Your task to perform on an android device: set the timer Image 0: 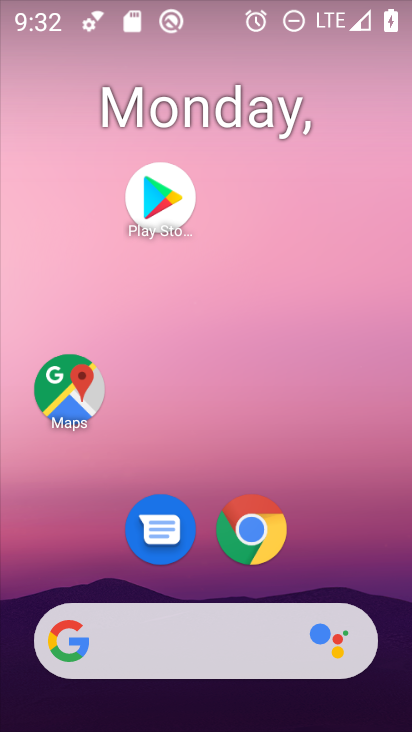
Step 0: click (250, 159)
Your task to perform on an android device: set the timer Image 1: 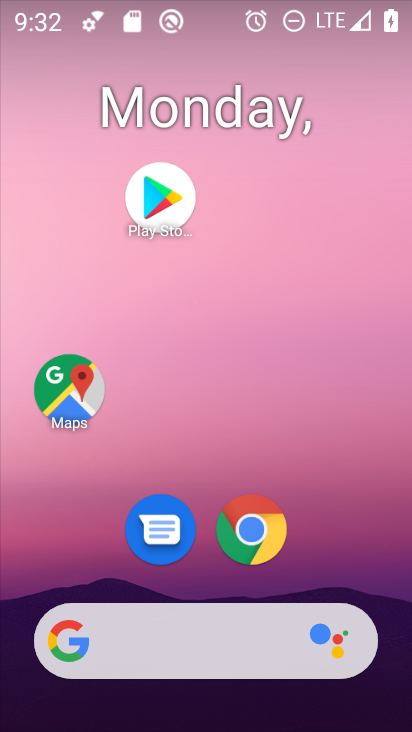
Step 1: drag from (336, 483) to (306, 64)
Your task to perform on an android device: set the timer Image 2: 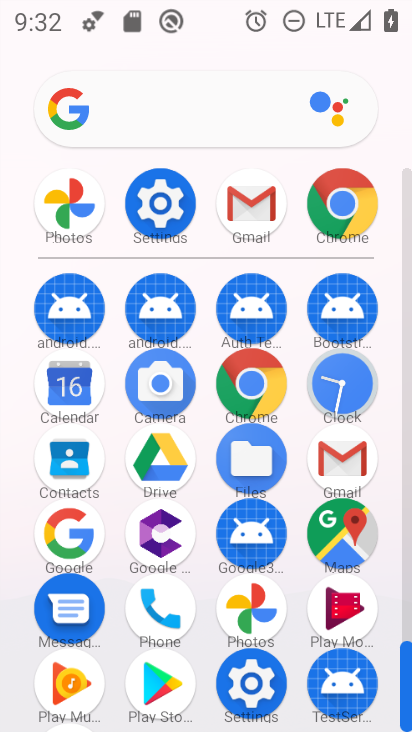
Step 2: click (332, 374)
Your task to perform on an android device: set the timer Image 3: 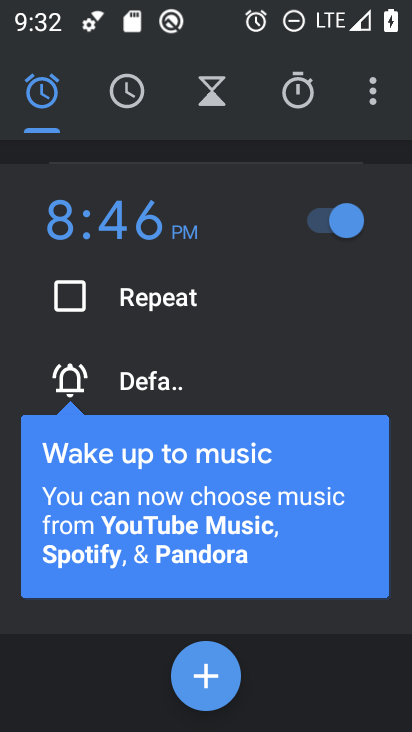
Step 3: click (377, 85)
Your task to perform on an android device: set the timer Image 4: 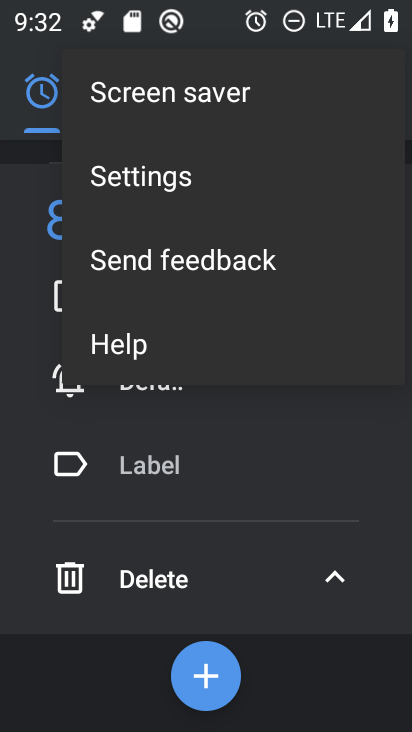
Step 4: click (152, 179)
Your task to perform on an android device: set the timer Image 5: 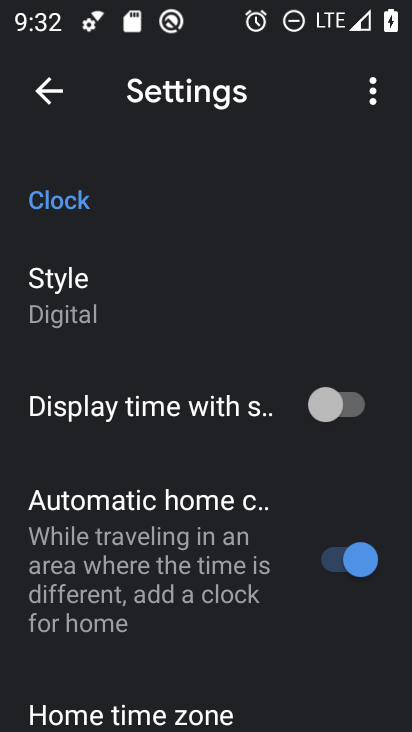
Step 5: drag from (224, 644) to (204, 258)
Your task to perform on an android device: set the timer Image 6: 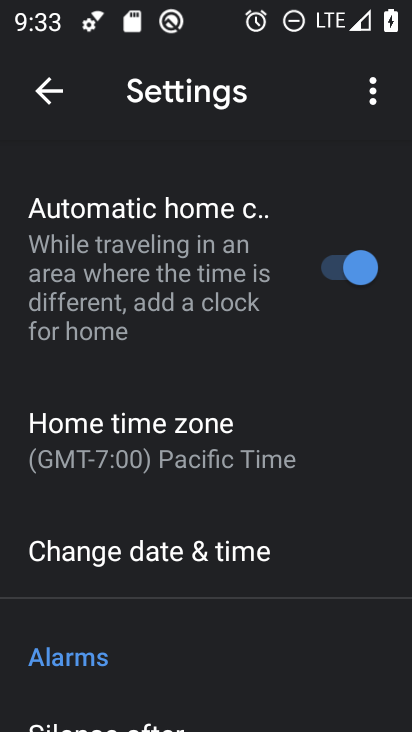
Step 6: drag from (200, 640) to (148, 316)
Your task to perform on an android device: set the timer Image 7: 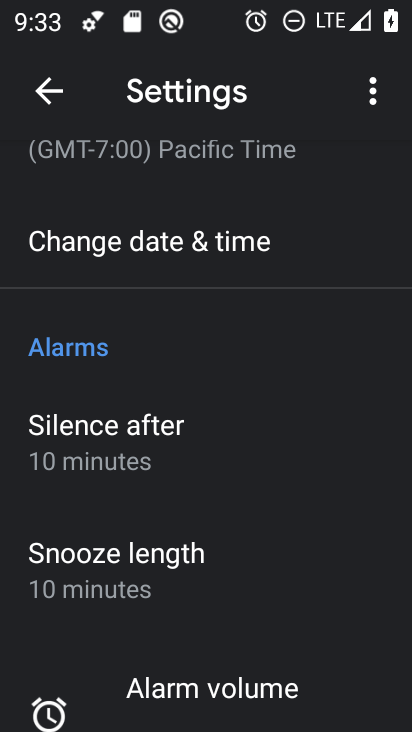
Step 7: drag from (206, 507) to (202, 128)
Your task to perform on an android device: set the timer Image 8: 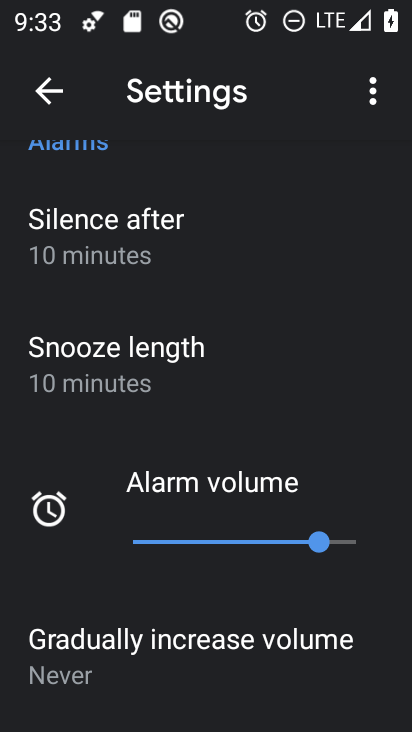
Step 8: drag from (211, 588) to (209, 277)
Your task to perform on an android device: set the timer Image 9: 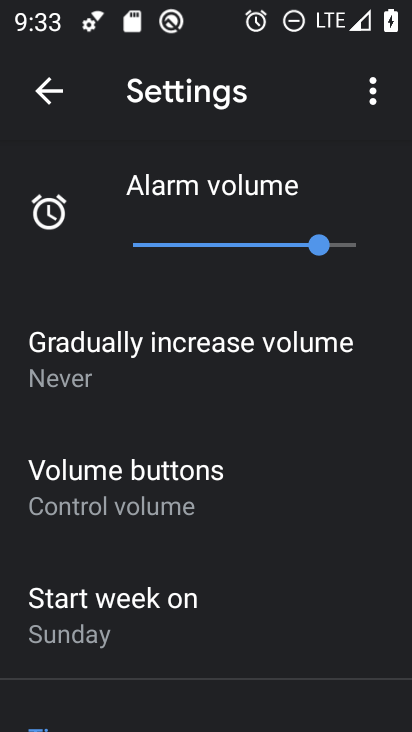
Step 9: drag from (229, 533) to (207, 262)
Your task to perform on an android device: set the timer Image 10: 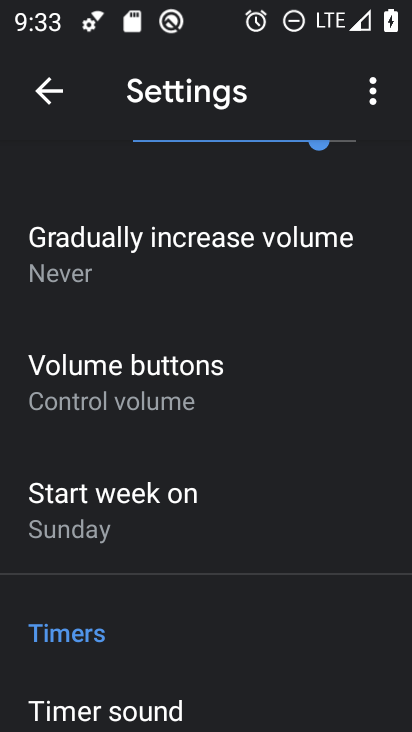
Step 10: click (128, 704)
Your task to perform on an android device: set the timer Image 11: 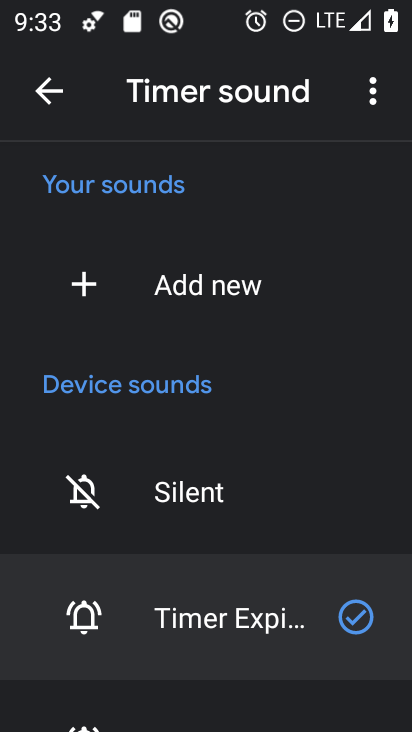
Step 11: drag from (166, 693) to (131, 443)
Your task to perform on an android device: set the timer Image 12: 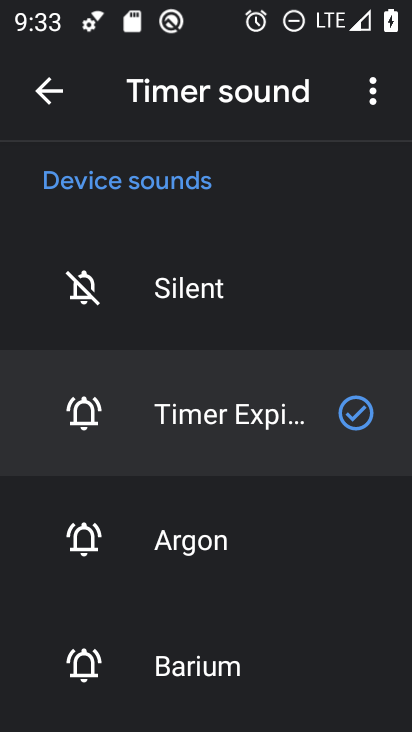
Step 12: click (181, 542)
Your task to perform on an android device: set the timer Image 13: 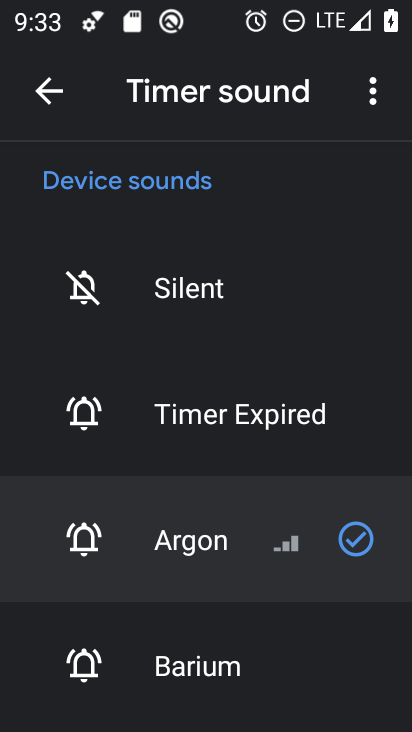
Step 13: task complete